Your task to perform on an android device: turn on showing notifications on the lock screen Image 0: 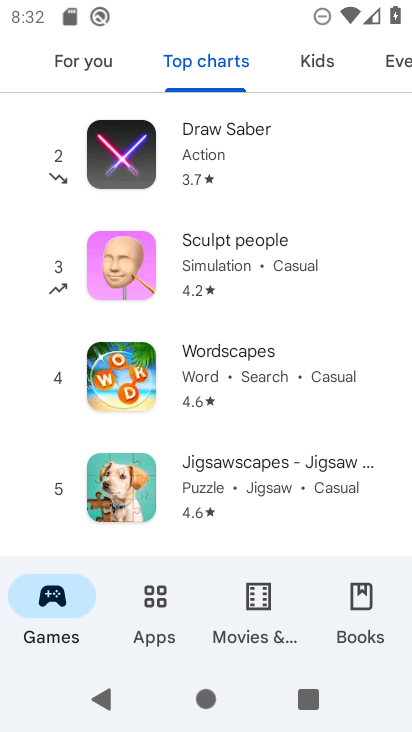
Step 0: press home button
Your task to perform on an android device: turn on showing notifications on the lock screen Image 1: 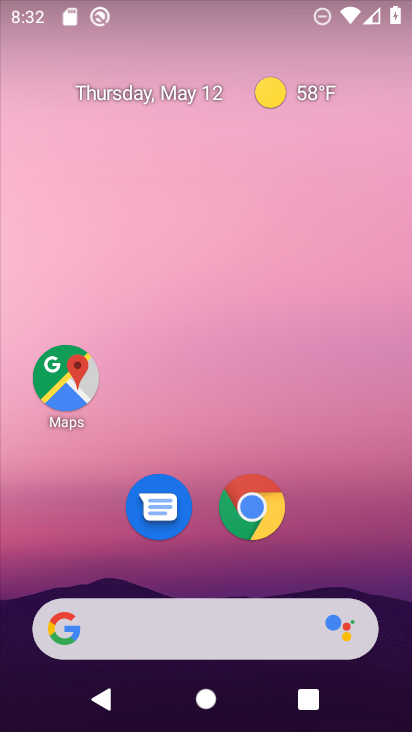
Step 1: drag from (213, 576) to (211, 173)
Your task to perform on an android device: turn on showing notifications on the lock screen Image 2: 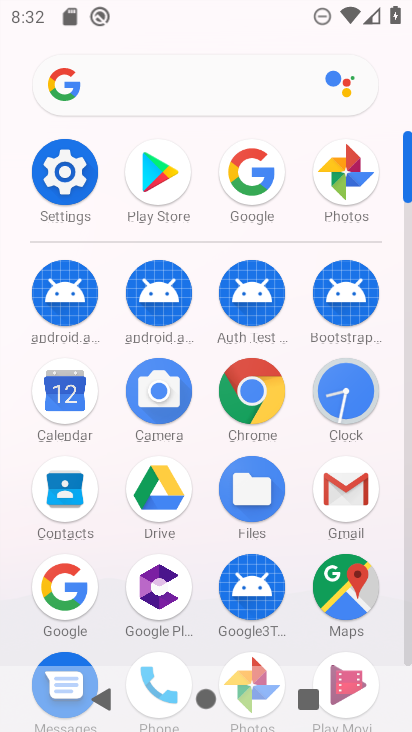
Step 2: click (76, 182)
Your task to perform on an android device: turn on showing notifications on the lock screen Image 3: 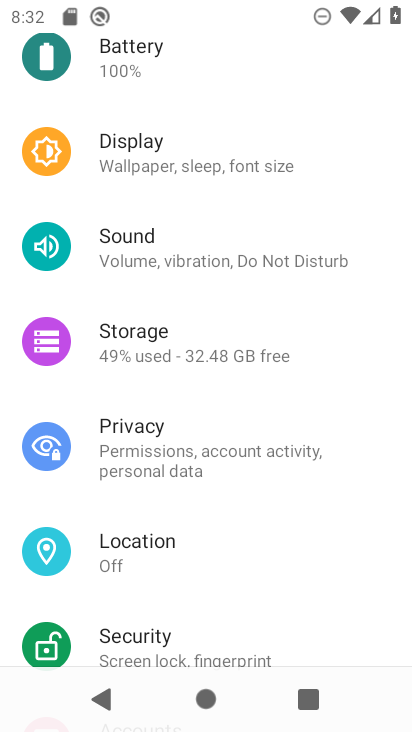
Step 3: click (200, 546)
Your task to perform on an android device: turn on showing notifications on the lock screen Image 4: 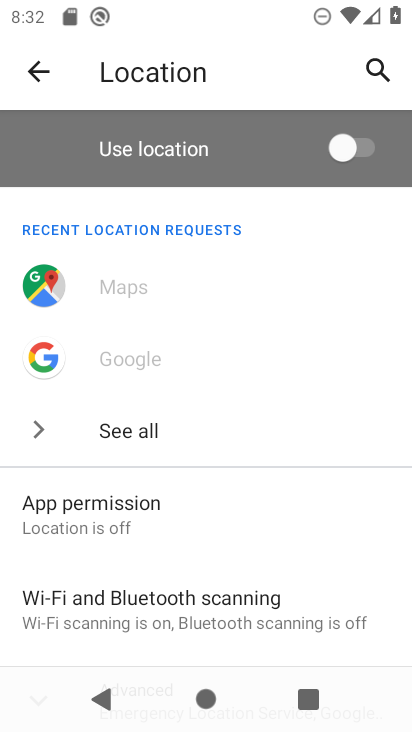
Step 4: drag from (233, 589) to (230, 242)
Your task to perform on an android device: turn on showing notifications on the lock screen Image 5: 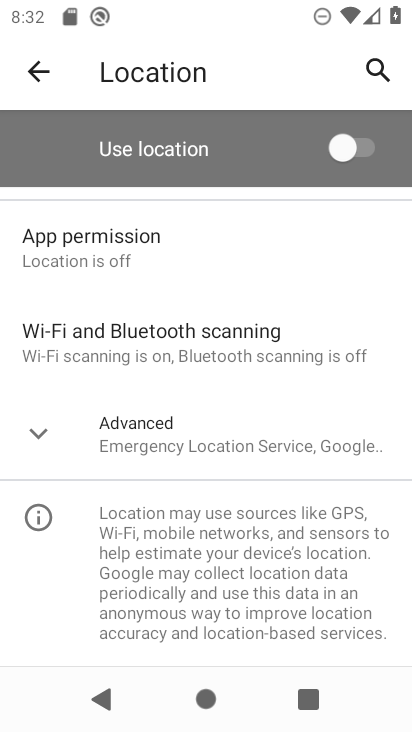
Step 5: drag from (154, 323) to (178, 461)
Your task to perform on an android device: turn on showing notifications on the lock screen Image 6: 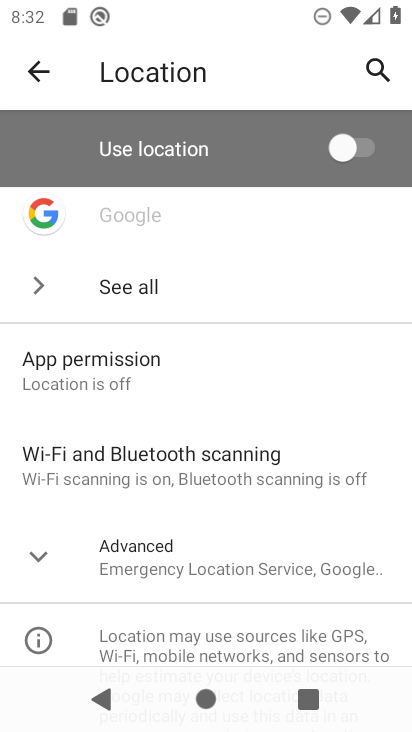
Step 6: press back button
Your task to perform on an android device: turn on showing notifications on the lock screen Image 7: 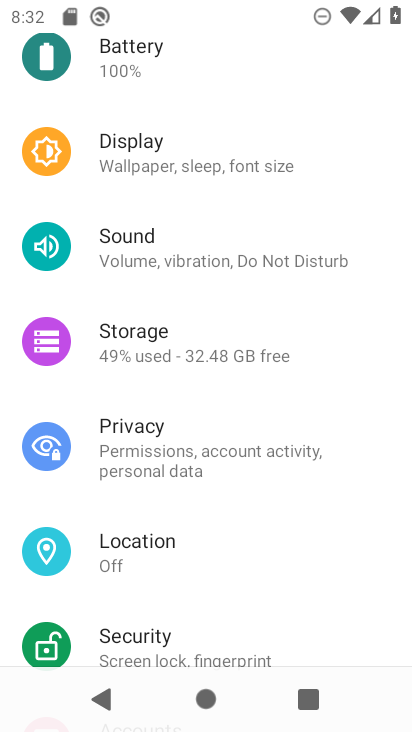
Step 7: drag from (223, 166) to (223, 480)
Your task to perform on an android device: turn on showing notifications on the lock screen Image 8: 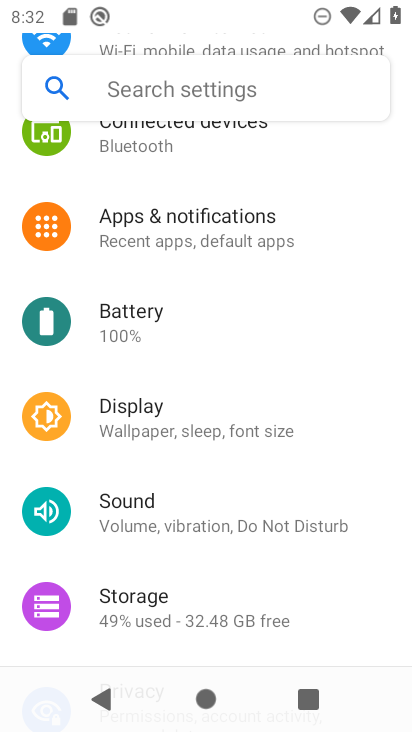
Step 8: drag from (199, 215) to (199, 467)
Your task to perform on an android device: turn on showing notifications on the lock screen Image 9: 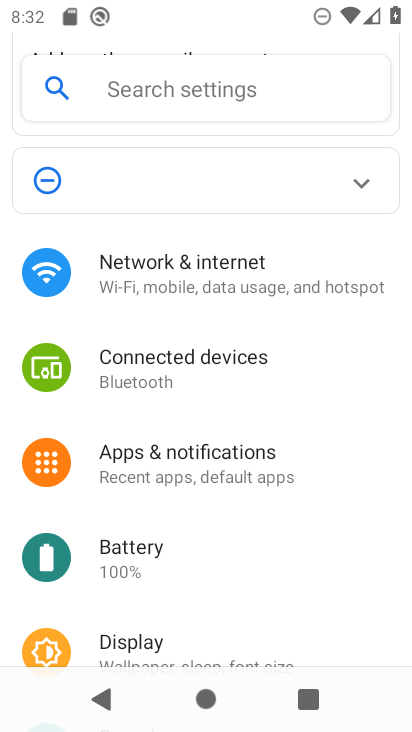
Step 9: click (193, 444)
Your task to perform on an android device: turn on showing notifications on the lock screen Image 10: 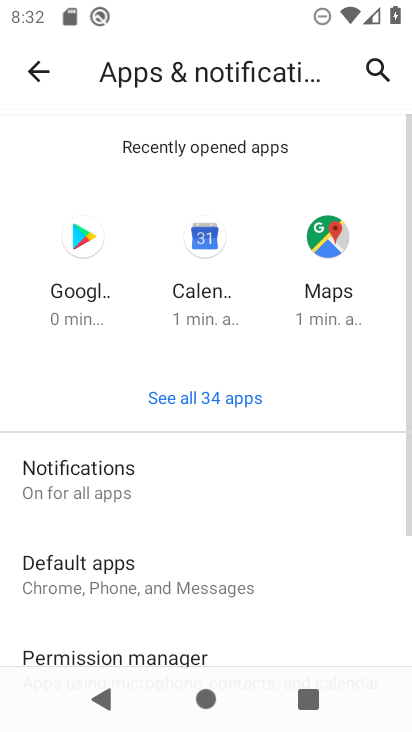
Step 10: click (145, 491)
Your task to perform on an android device: turn on showing notifications on the lock screen Image 11: 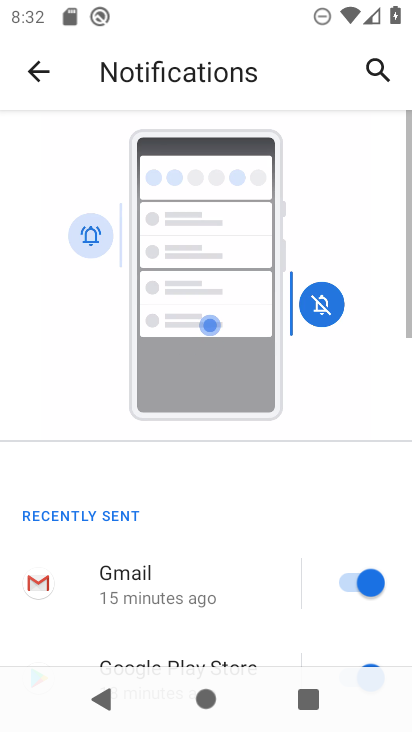
Step 11: drag from (236, 639) to (255, 317)
Your task to perform on an android device: turn on showing notifications on the lock screen Image 12: 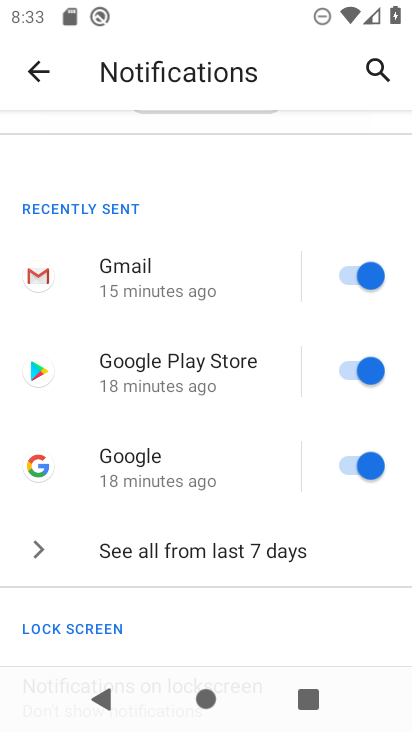
Step 12: drag from (212, 540) to (222, 276)
Your task to perform on an android device: turn on showing notifications on the lock screen Image 13: 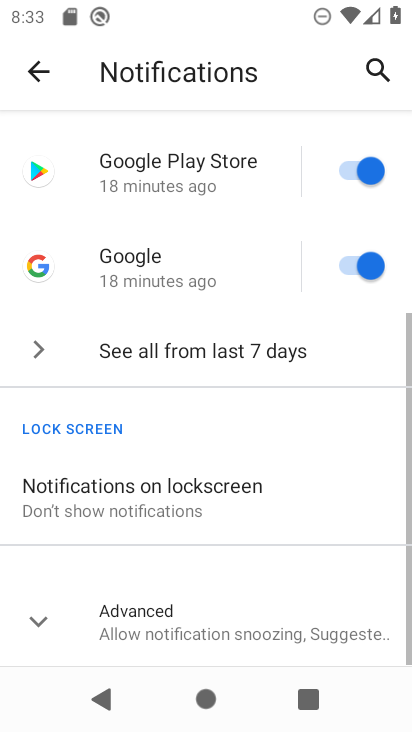
Step 13: click (220, 500)
Your task to perform on an android device: turn on showing notifications on the lock screen Image 14: 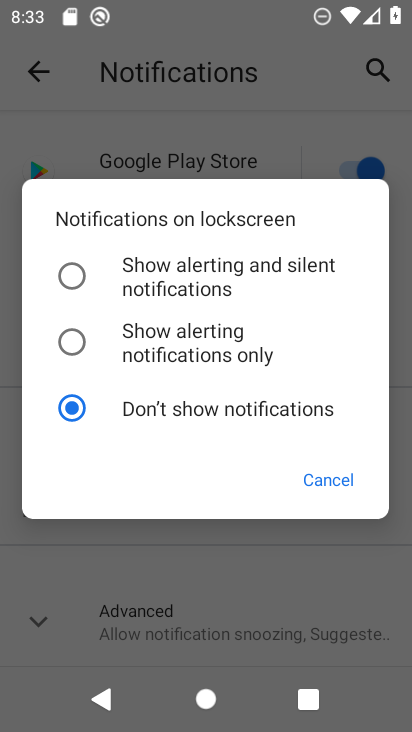
Step 14: click (141, 281)
Your task to perform on an android device: turn on showing notifications on the lock screen Image 15: 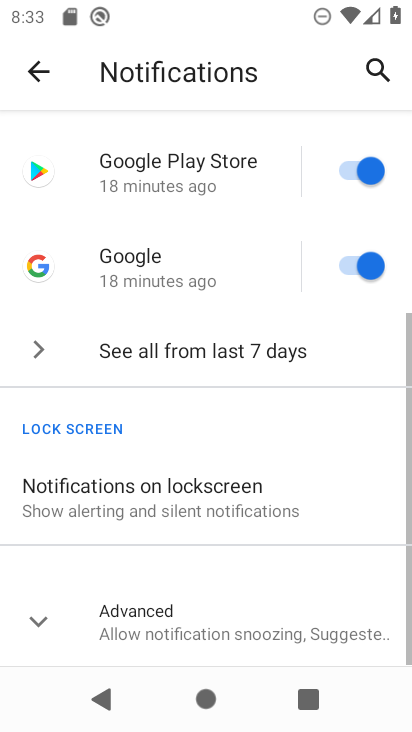
Step 15: task complete